Your task to perform on an android device: Open sound settings Image 0: 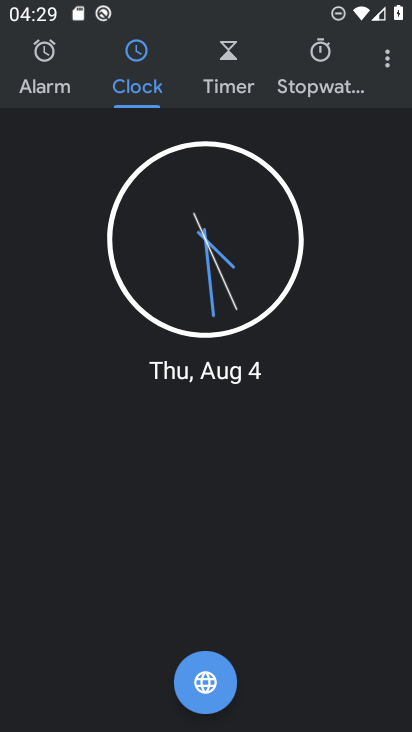
Step 0: press home button
Your task to perform on an android device: Open sound settings Image 1: 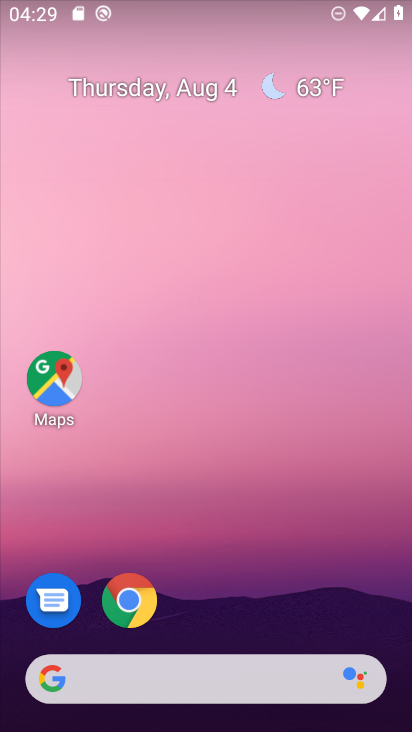
Step 1: drag from (297, 482) to (334, 72)
Your task to perform on an android device: Open sound settings Image 2: 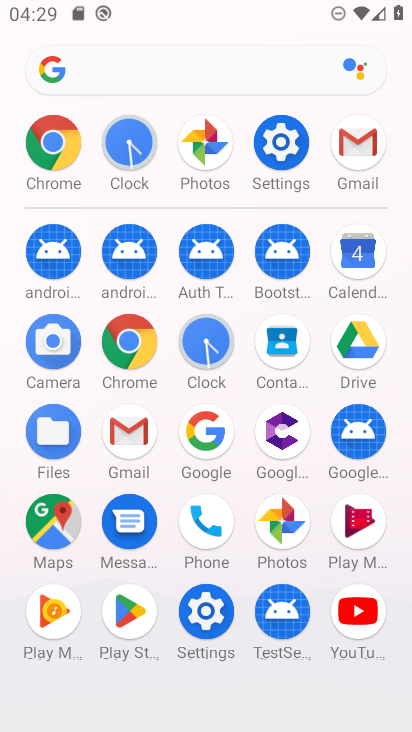
Step 2: click (282, 126)
Your task to perform on an android device: Open sound settings Image 3: 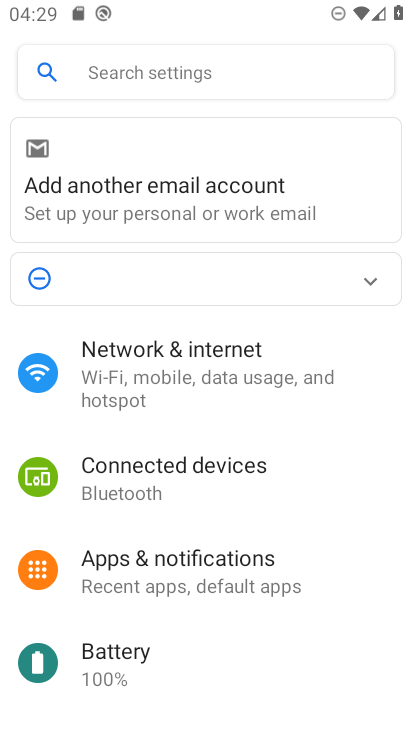
Step 3: drag from (260, 630) to (315, 197)
Your task to perform on an android device: Open sound settings Image 4: 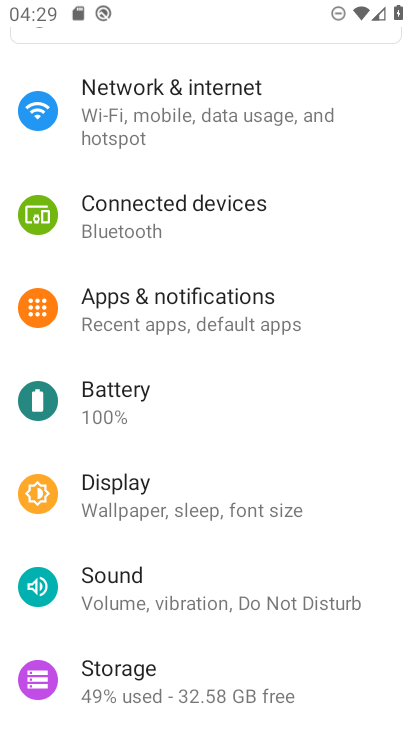
Step 4: click (134, 588)
Your task to perform on an android device: Open sound settings Image 5: 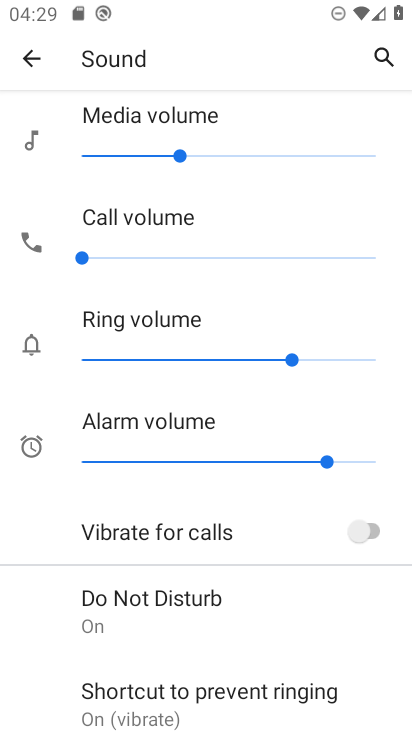
Step 5: task complete